Your task to perform on an android device: change the clock display to digital Image 0: 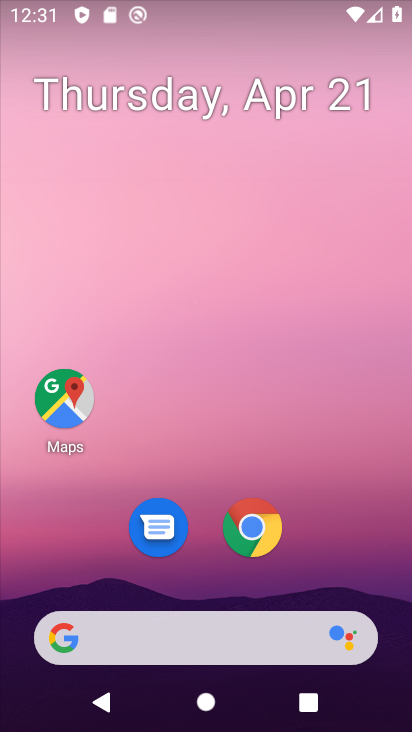
Step 0: drag from (354, 564) to (350, 156)
Your task to perform on an android device: change the clock display to digital Image 1: 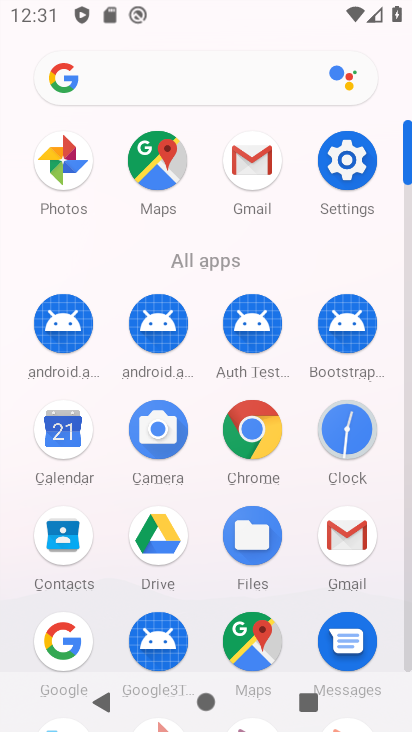
Step 1: click (357, 431)
Your task to perform on an android device: change the clock display to digital Image 2: 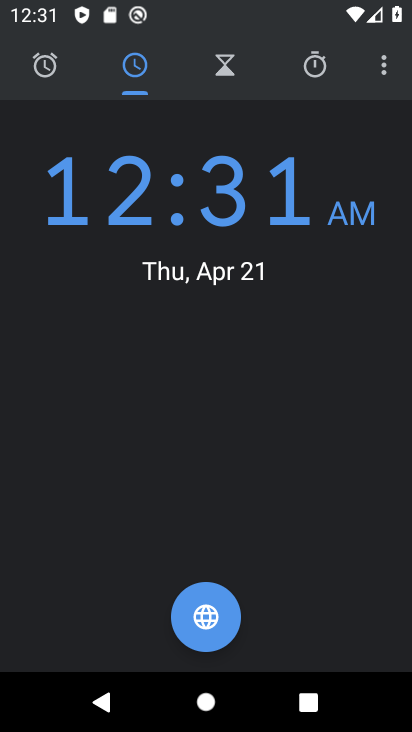
Step 2: click (387, 67)
Your task to perform on an android device: change the clock display to digital Image 3: 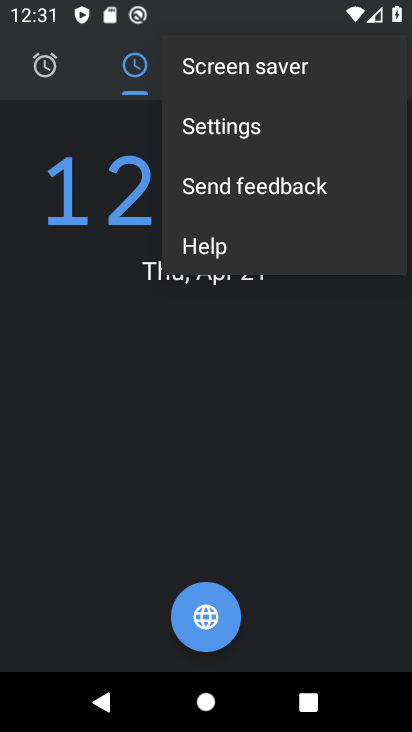
Step 3: click (285, 148)
Your task to perform on an android device: change the clock display to digital Image 4: 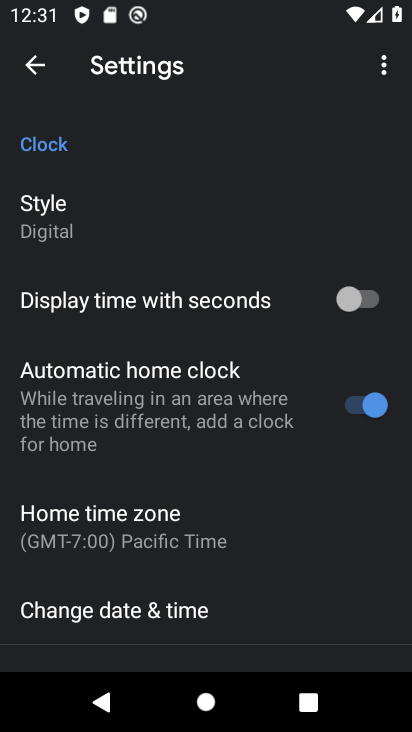
Step 4: task complete